Your task to perform on an android device: Clear all items from cart on amazon.com. Image 0: 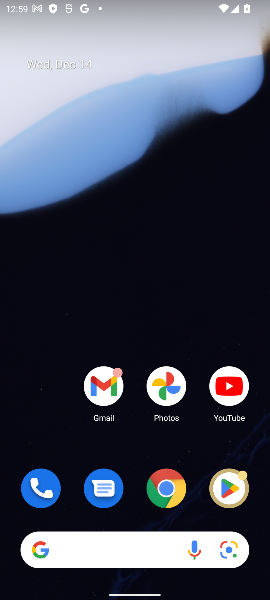
Step 0: drag from (89, 552) to (104, 78)
Your task to perform on an android device: Clear all items from cart on amazon.com. Image 1: 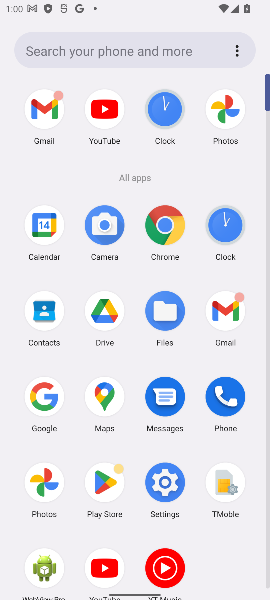
Step 1: click (49, 389)
Your task to perform on an android device: Clear all items from cart on amazon.com. Image 2: 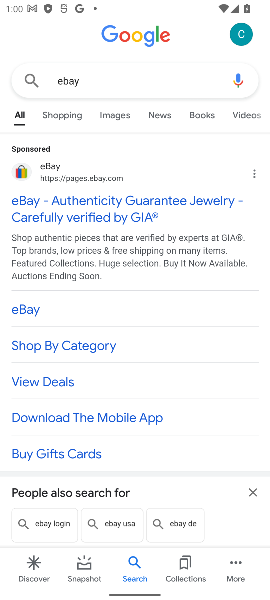
Step 2: click (88, 83)
Your task to perform on an android device: Clear all items from cart on amazon.com. Image 3: 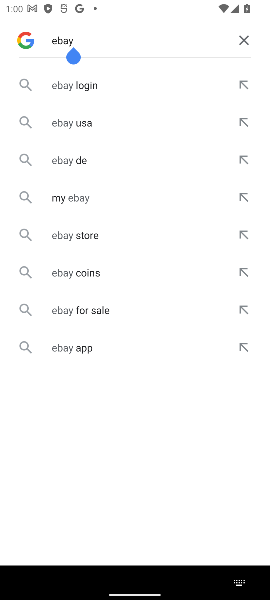
Step 3: click (241, 41)
Your task to perform on an android device: Clear all items from cart on amazon.com. Image 4: 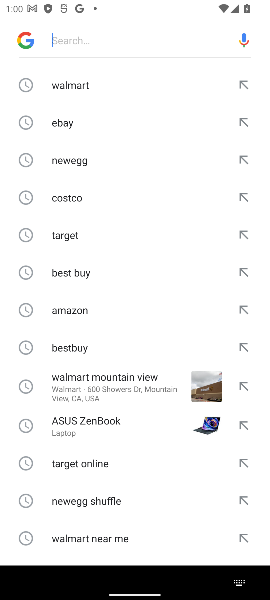
Step 4: click (87, 314)
Your task to perform on an android device: Clear all items from cart on amazon.com. Image 5: 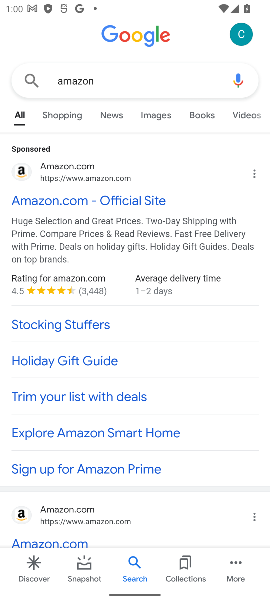
Step 5: click (54, 202)
Your task to perform on an android device: Clear all items from cart on amazon.com. Image 6: 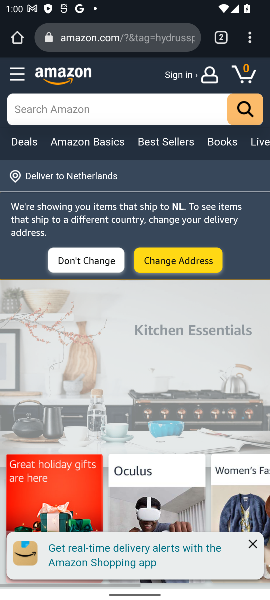
Step 6: click (245, 67)
Your task to perform on an android device: Clear all items from cart on amazon.com. Image 7: 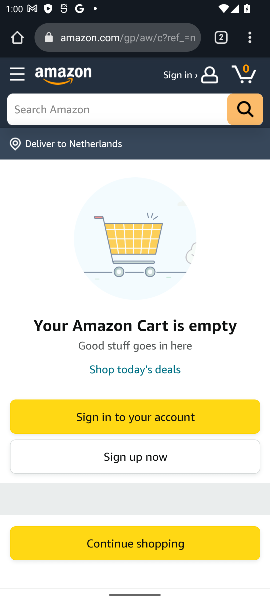
Step 7: task complete